Your task to perform on an android device: turn off picture-in-picture Image 0: 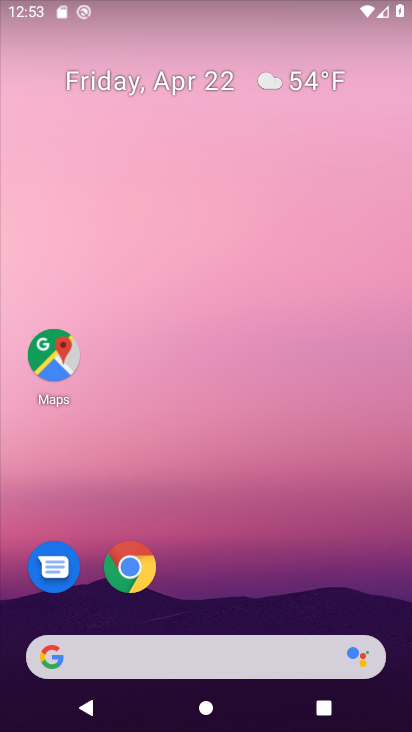
Step 0: drag from (207, 501) to (218, 304)
Your task to perform on an android device: turn off picture-in-picture Image 1: 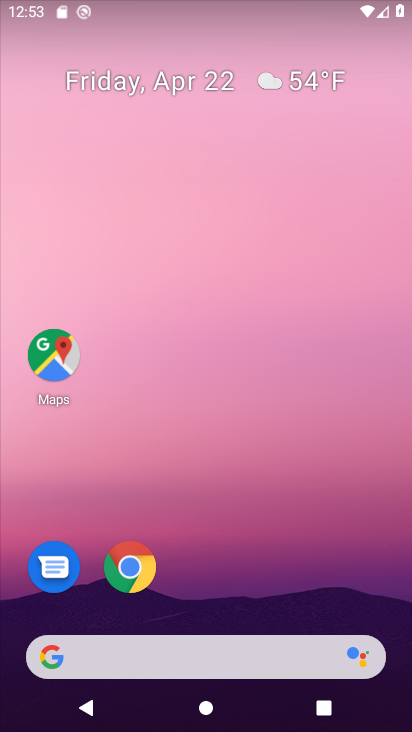
Step 1: drag from (208, 552) to (218, 328)
Your task to perform on an android device: turn off picture-in-picture Image 2: 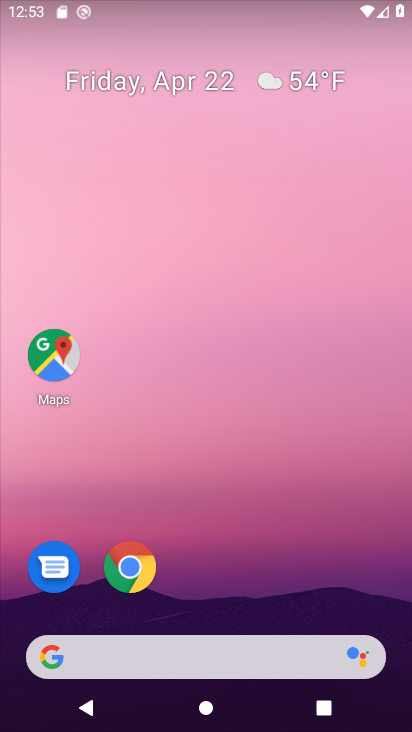
Step 2: drag from (246, 645) to (288, 159)
Your task to perform on an android device: turn off picture-in-picture Image 3: 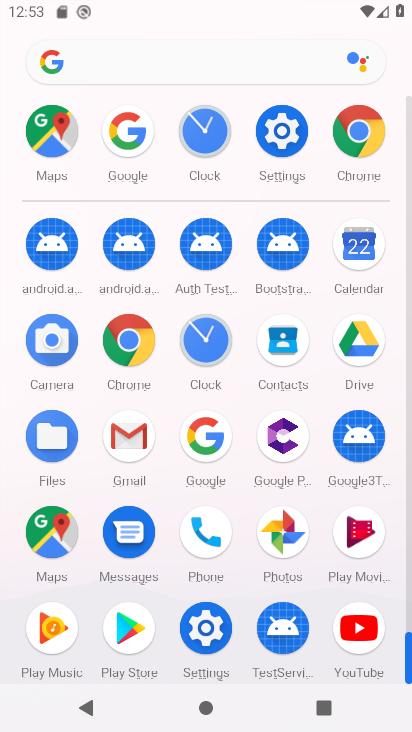
Step 3: click (293, 153)
Your task to perform on an android device: turn off picture-in-picture Image 4: 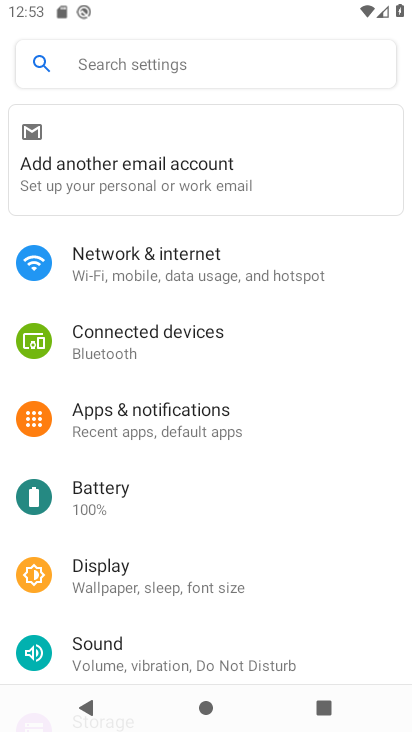
Step 4: drag from (244, 509) to (298, 269)
Your task to perform on an android device: turn off picture-in-picture Image 5: 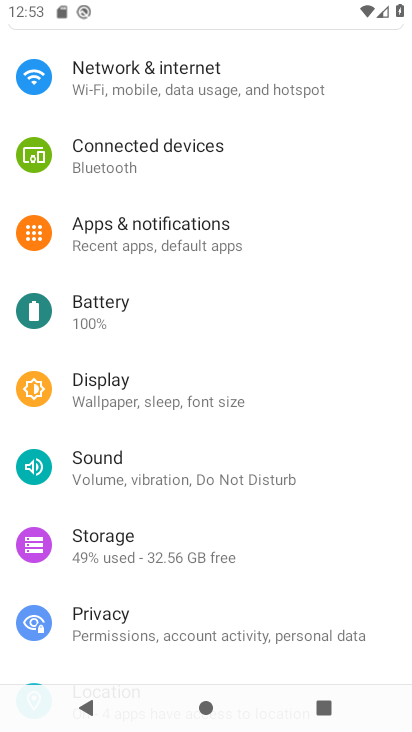
Step 5: click (292, 236)
Your task to perform on an android device: turn off picture-in-picture Image 6: 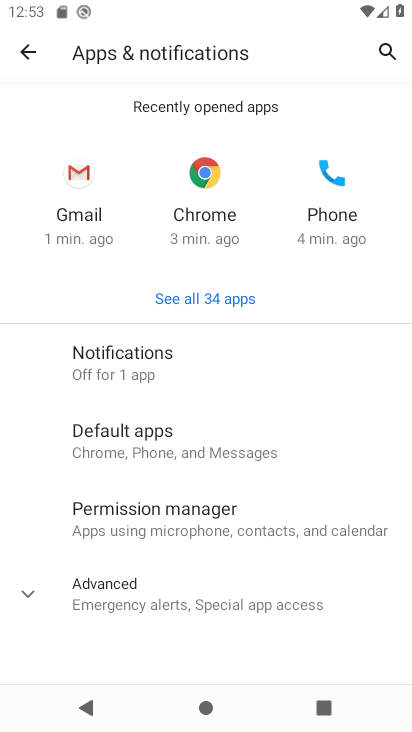
Step 6: click (194, 588)
Your task to perform on an android device: turn off picture-in-picture Image 7: 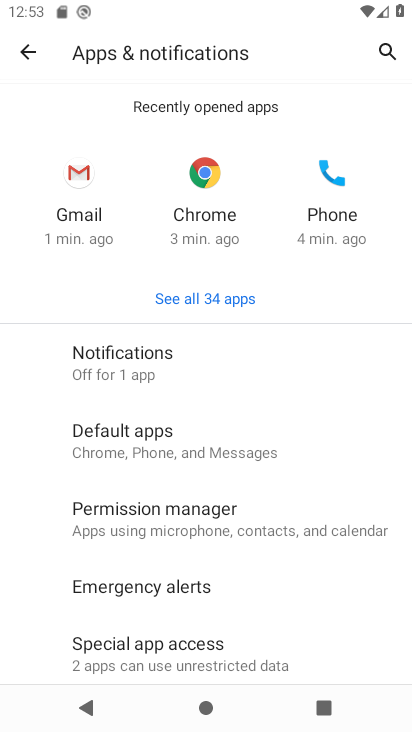
Step 7: drag from (164, 555) to (155, 236)
Your task to perform on an android device: turn off picture-in-picture Image 8: 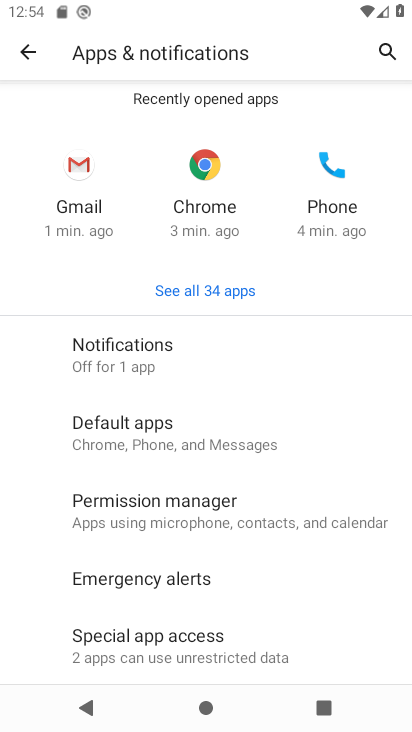
Step 8: drag from (167, 571) to (245, 243)
Your task to perform on an android device: turn off picture-in-picture Image 9: 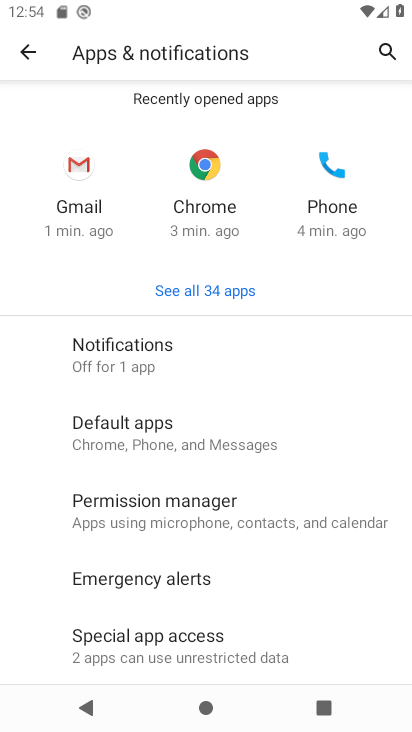
Step 9: drag from (185, 540) to (211, 282)
Your task to perform on an android device: turn off picture-in-picture Image 10: 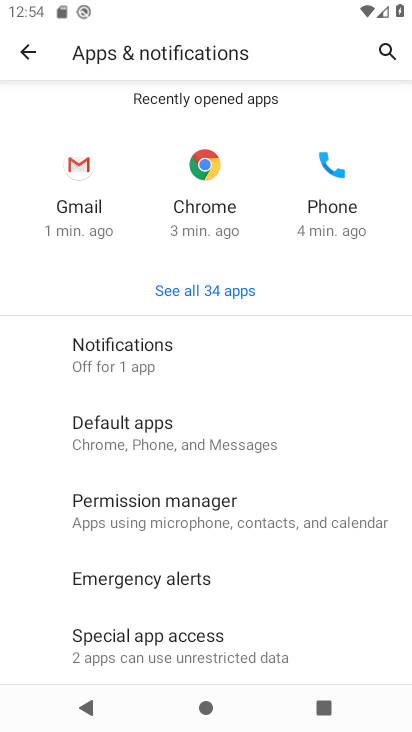
Step 10: drag from (261, 592) to (263, 343)
Your task to perform on an android device: turn off picture-in-picture Image 11: 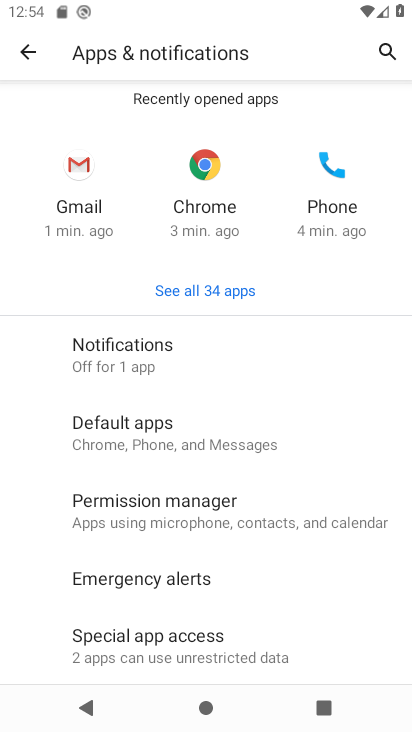
Step 11: click (140, 642)
Your task to perform on an android device: turn off picture-in-picture Image 12: 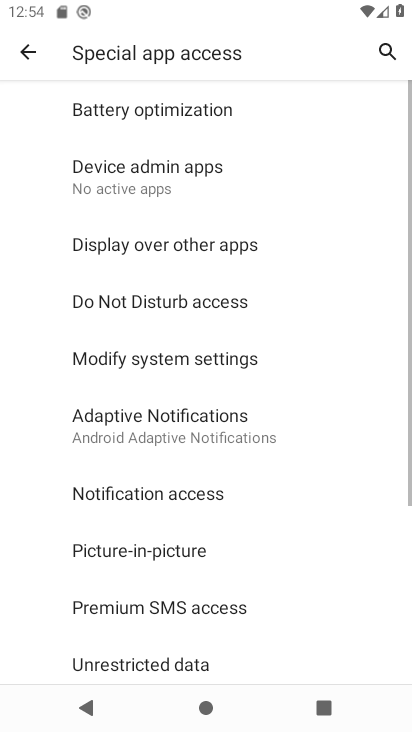
Step 12: drag from (159, 535) to (164, 282)
Your task to perform on an android device: turn off picture-in-picture Image 13: 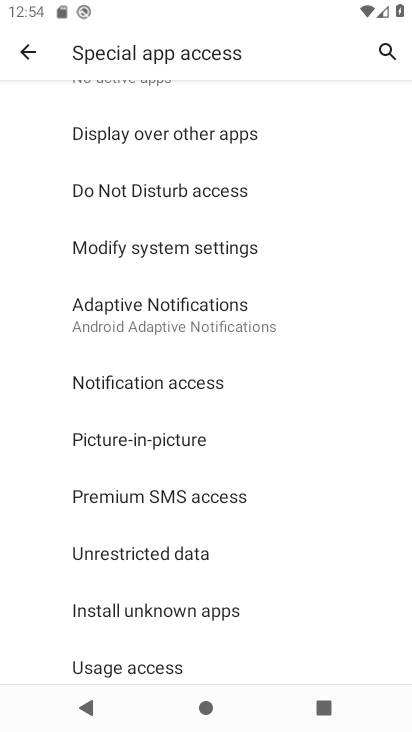
Step 13: click (183, 436)
Your task to perform on an android device: turn off picture-in-picture Image 14: 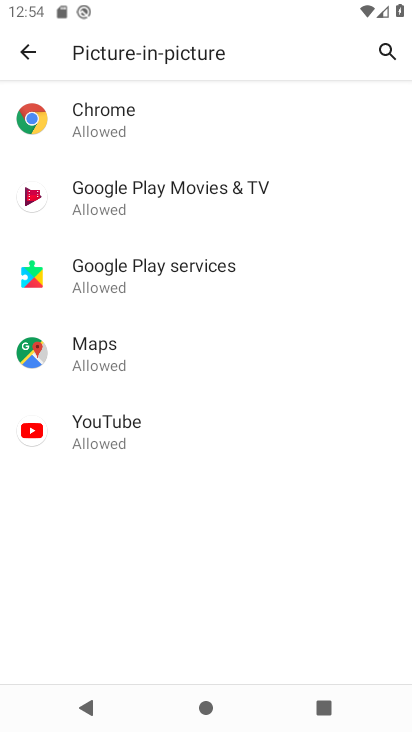
Step 14: click (138, 126)
Your task to perform on an android device: turn off picture-in-picture Image 15: 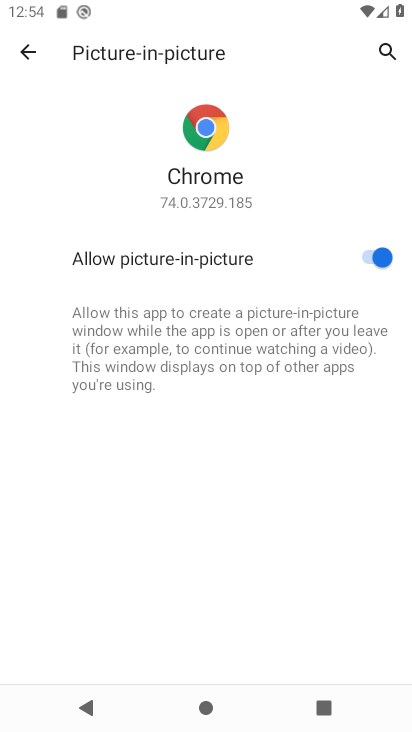
Step 15: click (376, 251)
Your task to perform on an android device: turn off picture-in-picture Image 16: 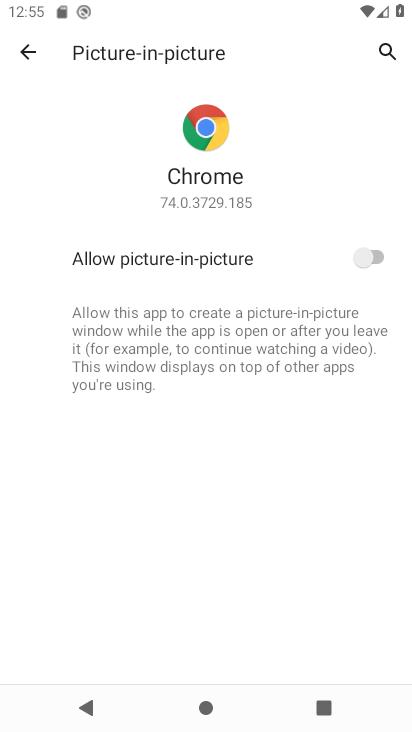
Step 16: task complete